Your task to perform on an android device: What's on the menu at IHOP? Image 0: 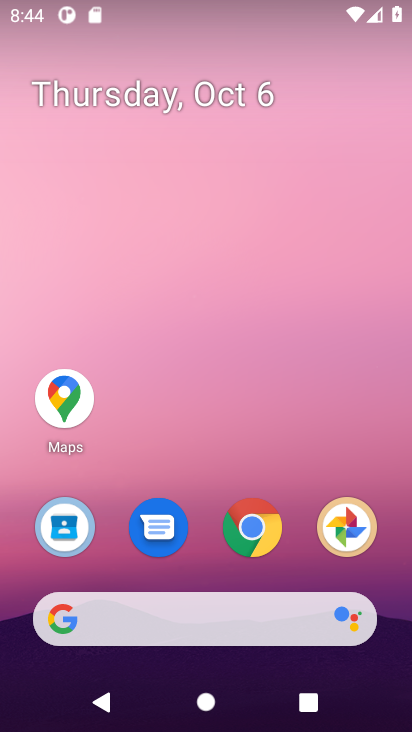
Step 0: drag from (207, 564) to (239, 5)
Your task to perform on an android device: What's on the menu at IHOP? Image 1: 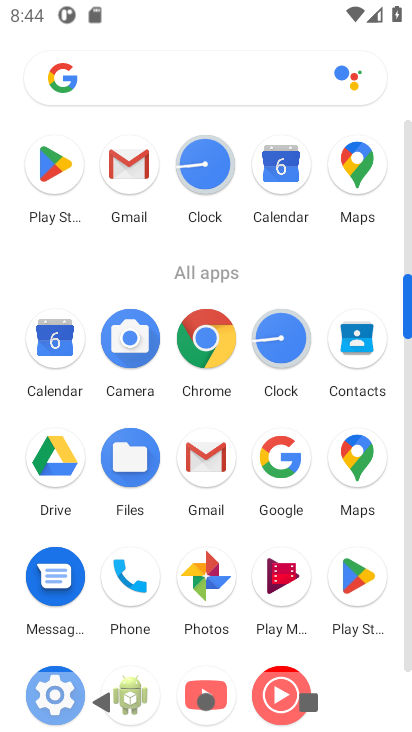
Step 1: click (208, 354)
Your task to perform on an android device: What's on the menu at IHOP? Image 2: 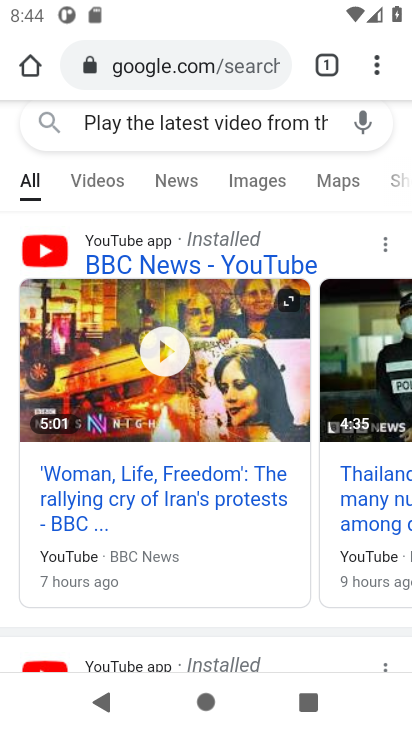
Step 2: click (203, 62)
Your task to perform on an android device: What's on the menu at IHOP? Image 3: 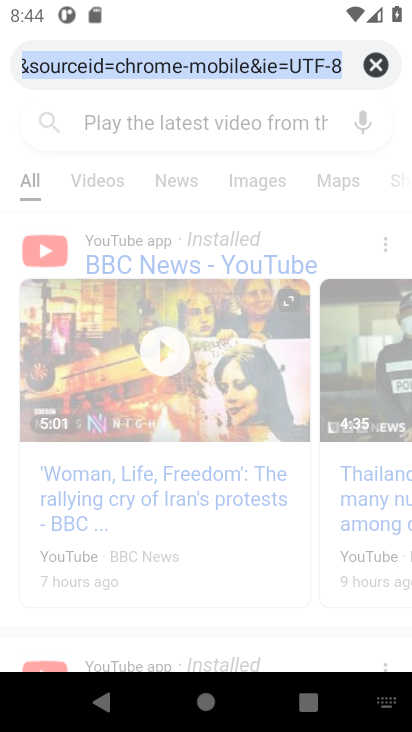
Step 3: type "What's on the menu at IHOP?"
Your task to perform on an android device: What's on the menu at IHOP? Image 4: 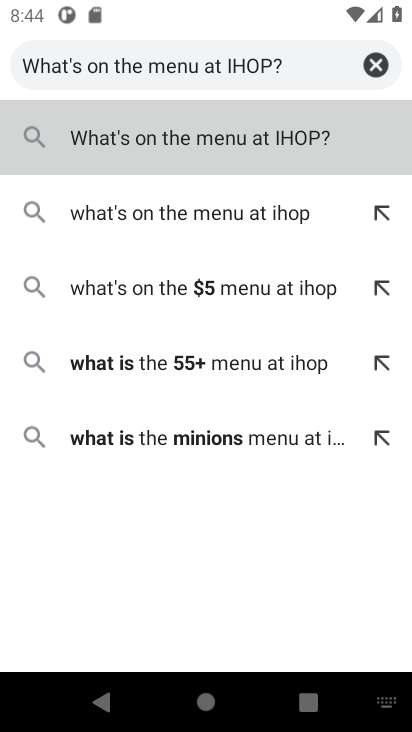
Step 4: click (231, 133)
Your task to perform on an android device: What's on the menu at IHOP? Image 5: 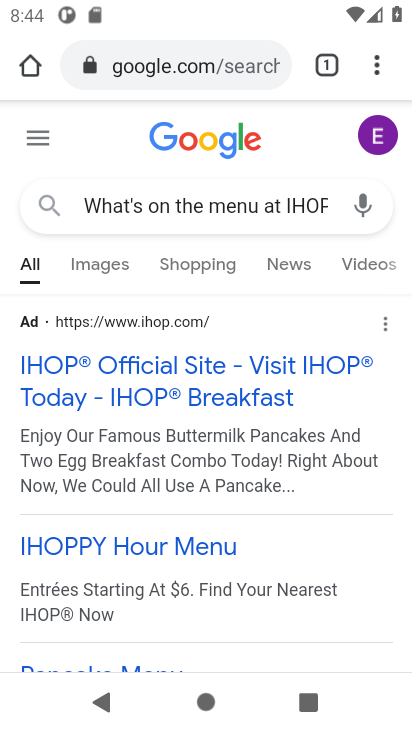
Step 5: drag from (201, 547) to (227, 281)
Your task to perform on an android device: What's on the menu at IHOP? Image 6: 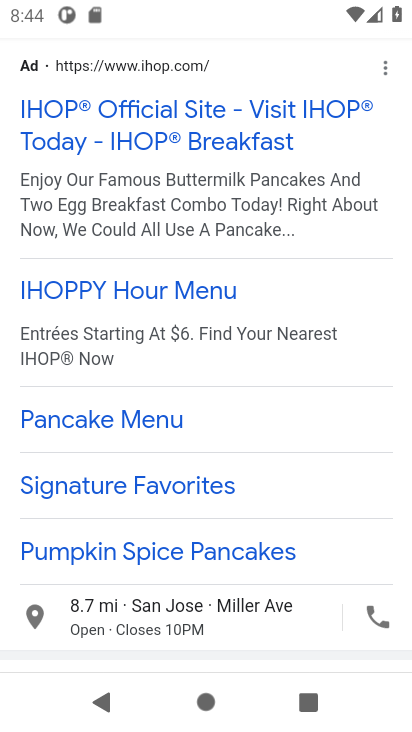
Step 6: click (246, 133)
Your task to perform on an android device: What's on the menu at IHOP? Image 7: 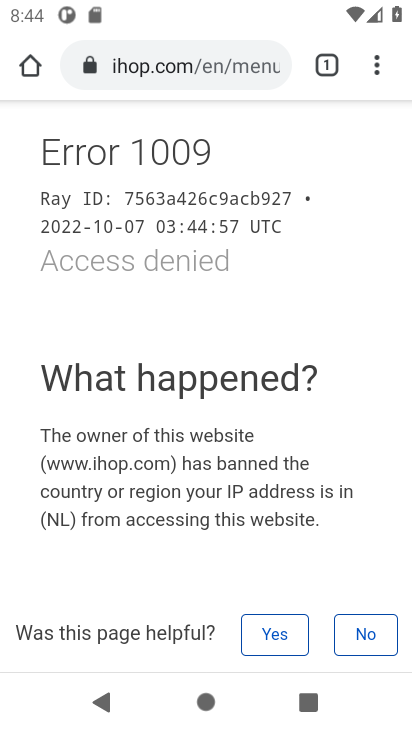
Step 7: task complete